Your task to perform on an android device: What is the recent news? Image 0: 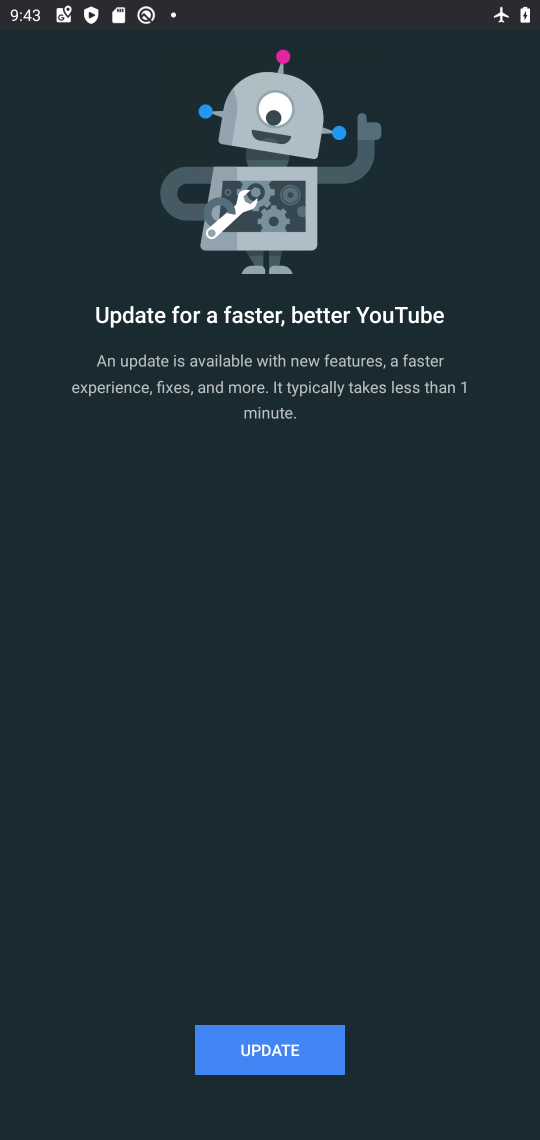
Step 0: press back button
Your task to perform on an android device: What is the recent news? Image 1: 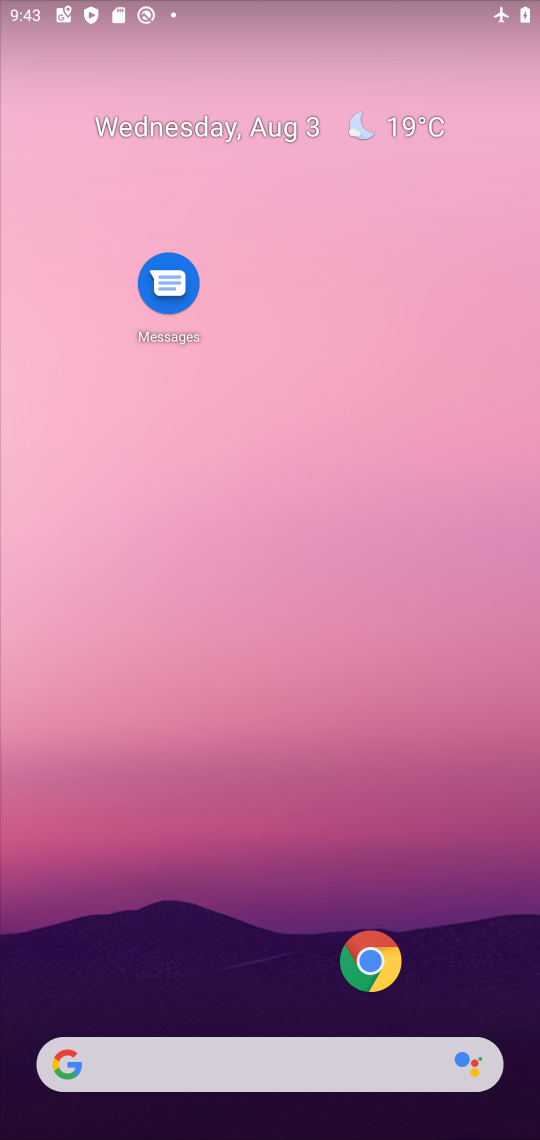
Step 1: drag from (324, 1034) to (288, 208)
Your task to perform on an android device: What is the recent news? Image 2: 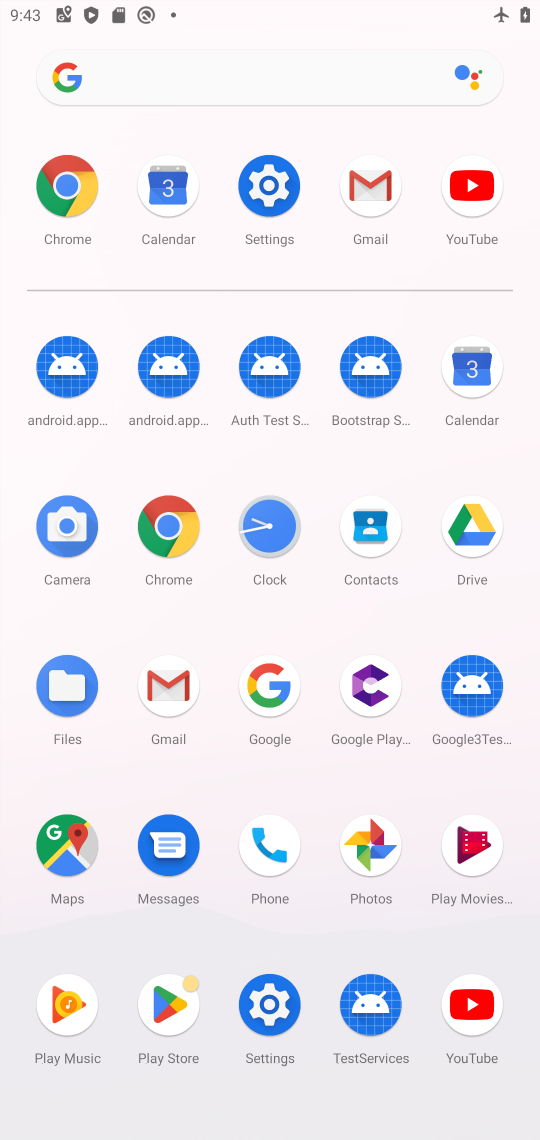
Step 2: click (280, 692)
Your task to perform on an android device: What is the recent news? Image 3: 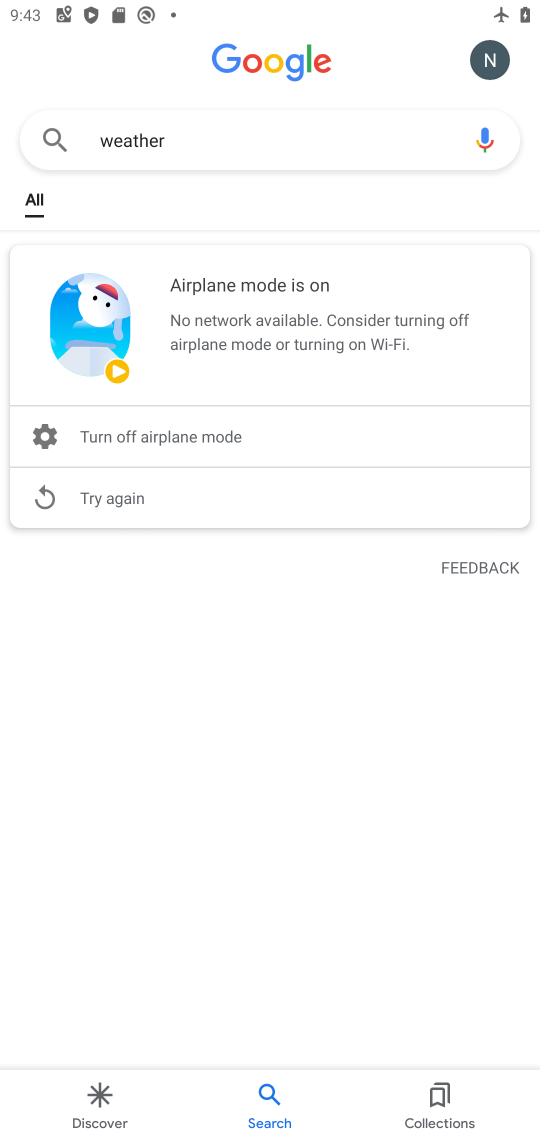
Step 3: click (167, 153)
Your task to perform on an android device: What is the recent news? Image 4: 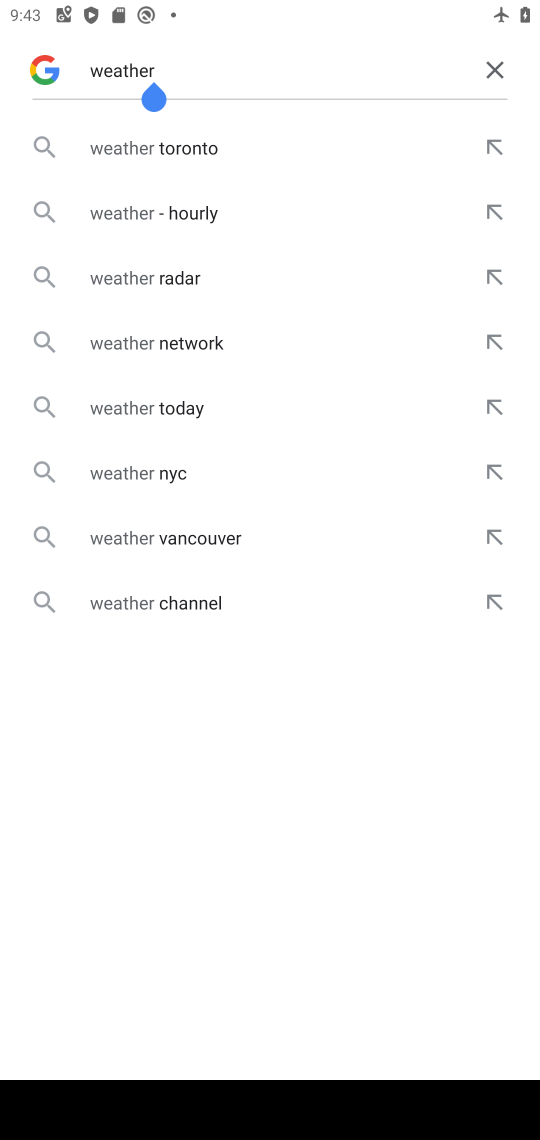
Step 4: click (486, 77)
Your task to perform on an android device: What is the recent news? Image 5: 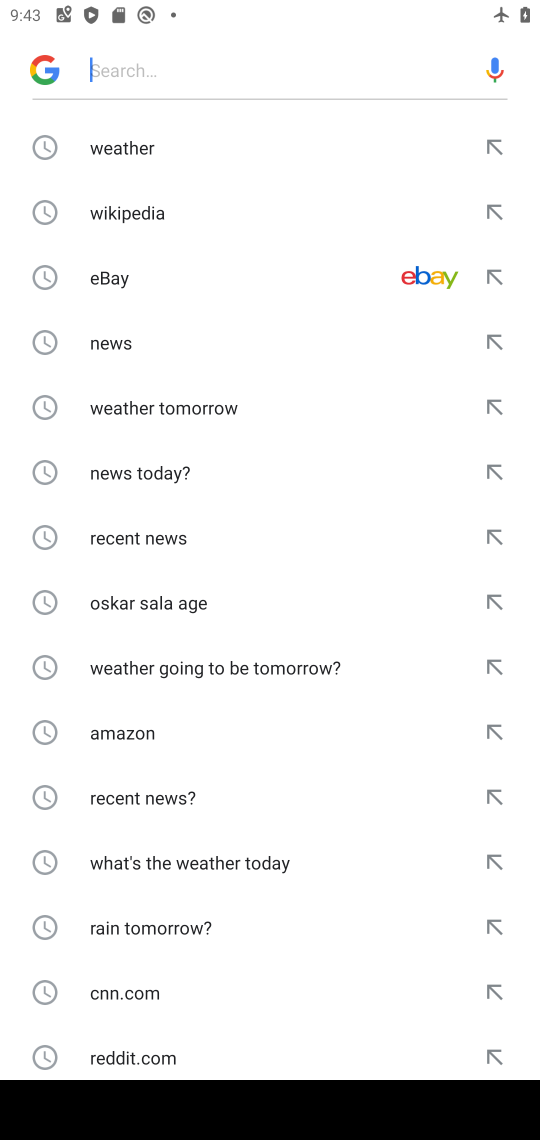
Step 5: type "recent news"
Your task to perform on an android device: What is the recent news? Image 6: 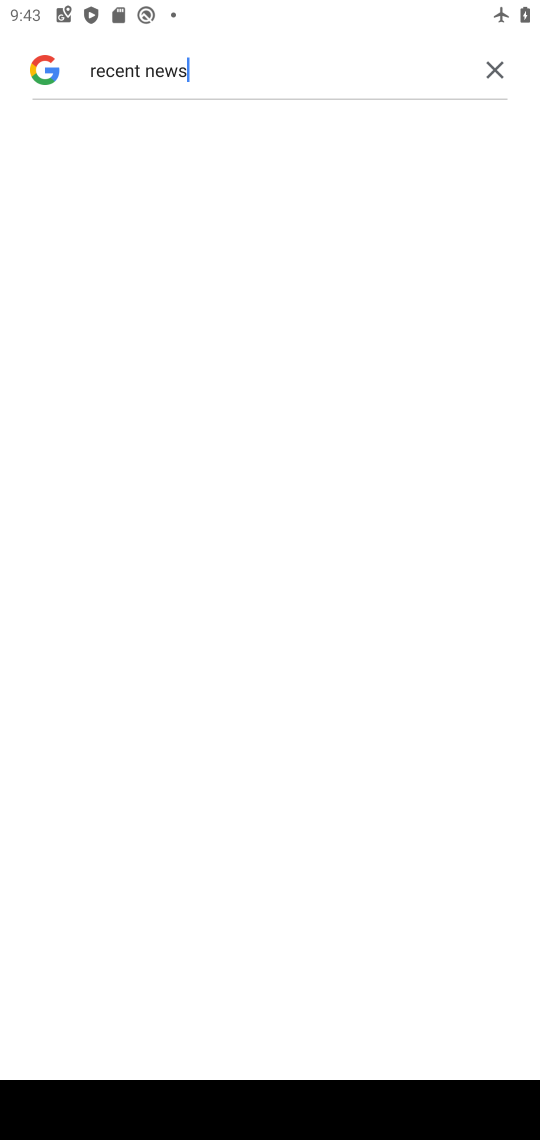
Step 6: task complete